Your task to perform on an android device: toggle airplane mode Image 0: 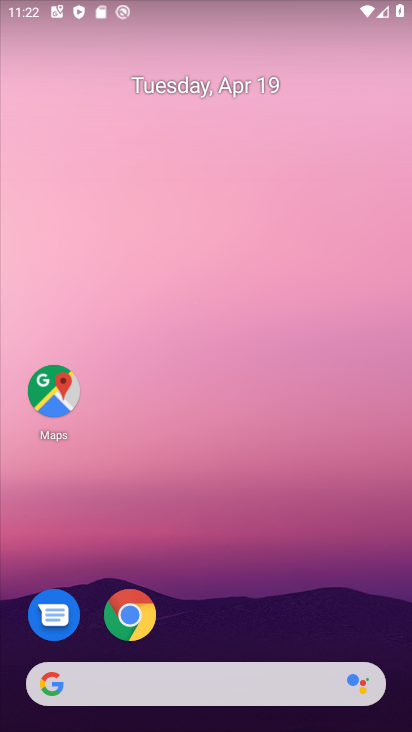
Step 0: drag from (205, 666) to (146, 60)
Your task to perform on an android device: toggle airplane mode Image 1: 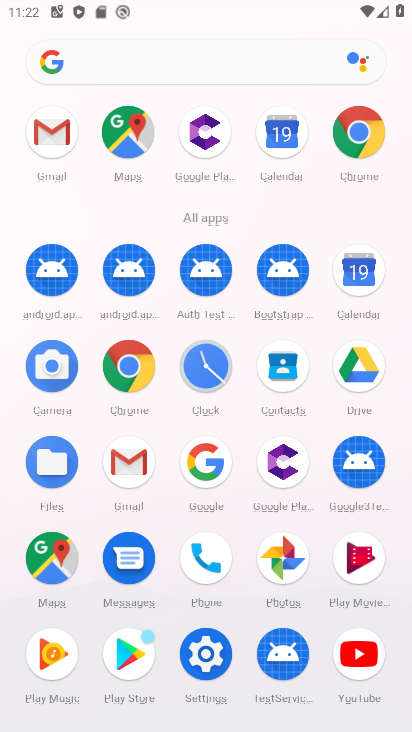
Step 1: click (204, 643)
Your task to perform on an android device: toggle airplane mode Image 2: 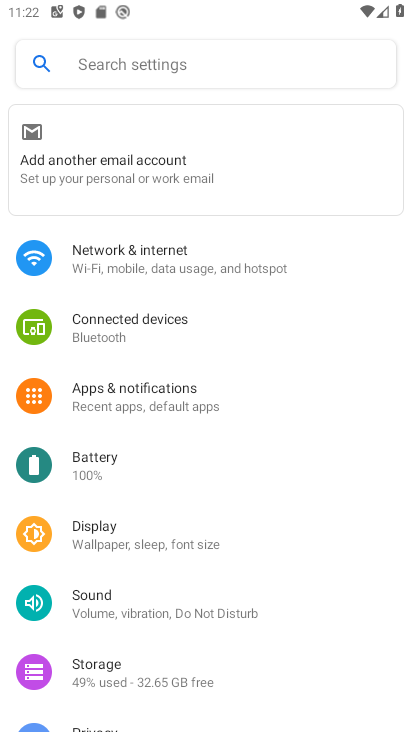
Step 2: click (140, 273)
Your task to perform on an android device: toggle airplane mode Image 3: 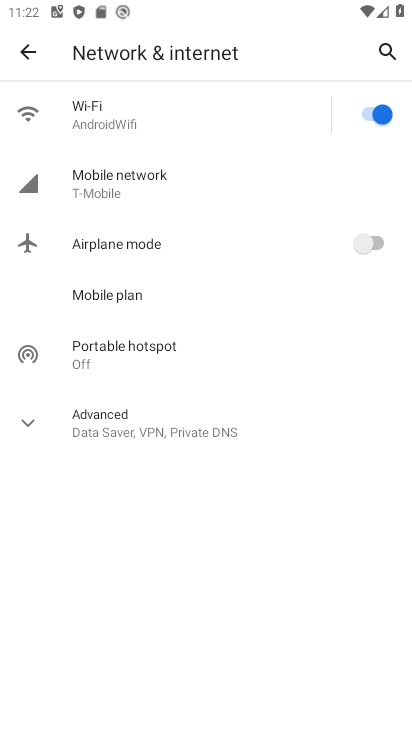
Step 3: click (375, 248)
Your task to perform on an android device: toggle airplane mode Image 4: 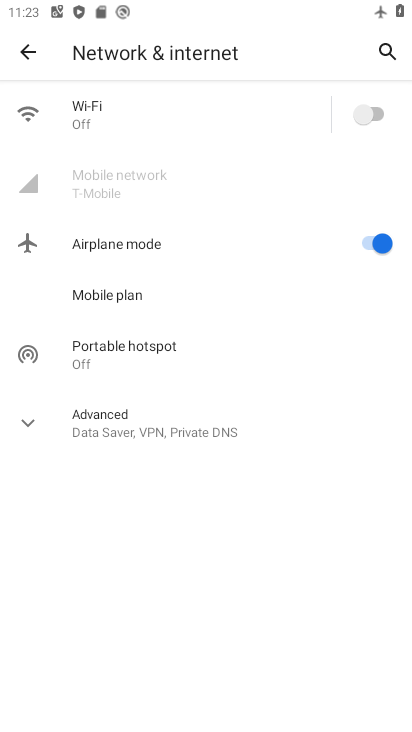
Step 4: task complete